Your task to perform on an android device: turn off translation in the chrome app Image 0: 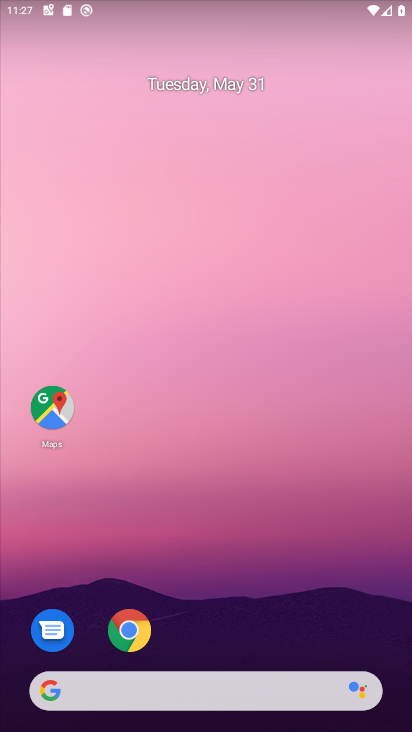
Step 0: drag from (211, 615) to (201, 153)
Your task to perform on an android device: turn off translation in the chrome app Image 1: 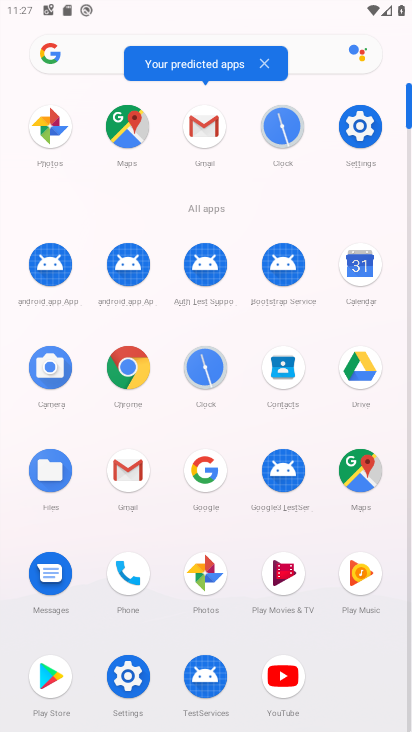
Step 1: click (118, 361)
Your task to perform on an android device: turn off translation in the chrome app Image 2: 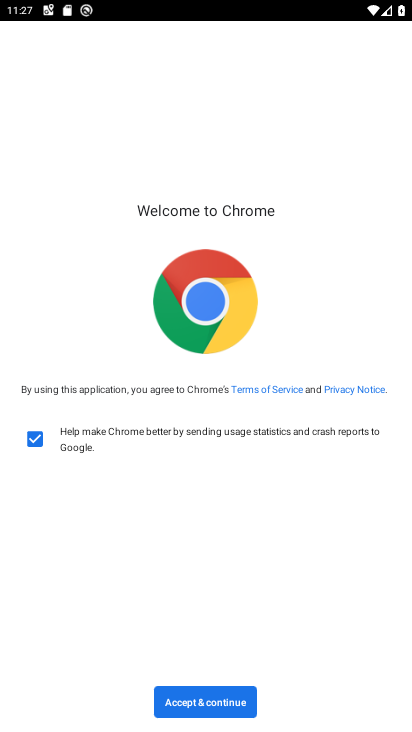
Step 2: click (213, 696)
Your task to perform on an android device: turn off translation in the chrome app Image 3: 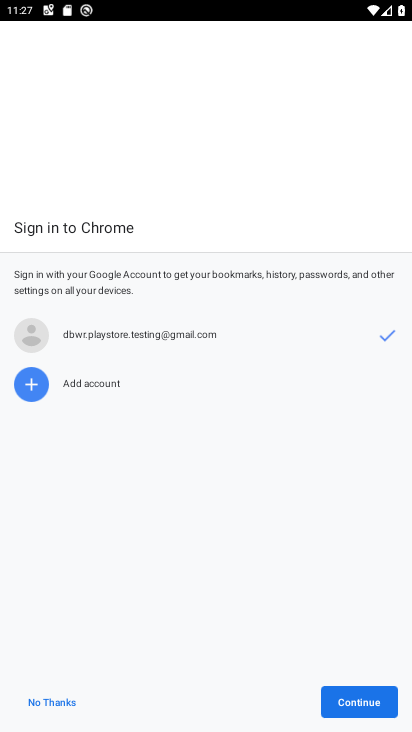
Step 3: click (352, 698)
Your task to perform on an android device: turn off translation in the chrome app Image 4: 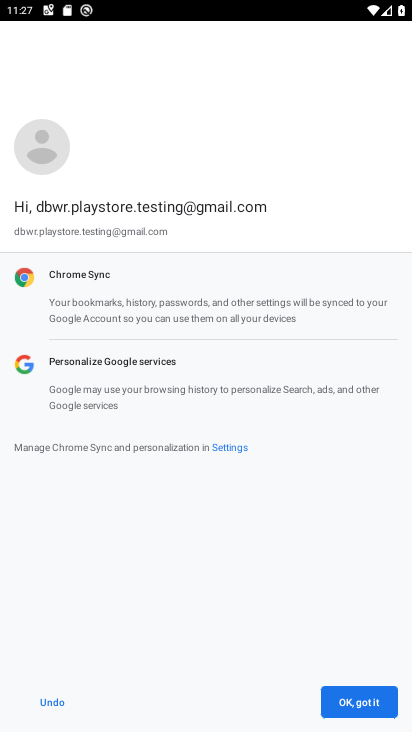
Step 4: click (354, 696)
Your task to perform on an android device: turn off translation in the chrome app Image 5: 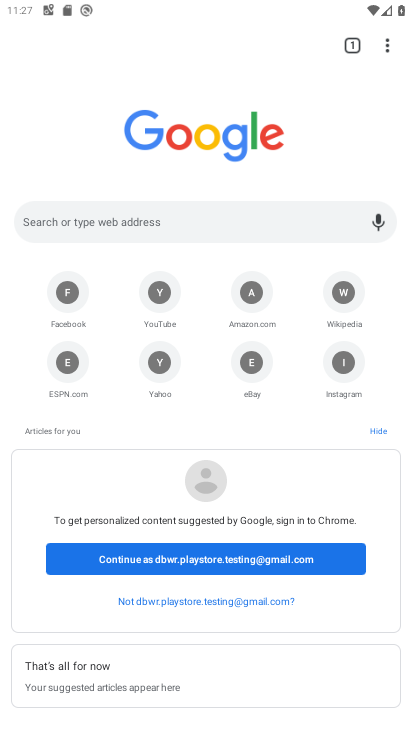
Step 5: click (379, 46)
Your task to perform on an android device: turn off translation in the chrome app Image 6: 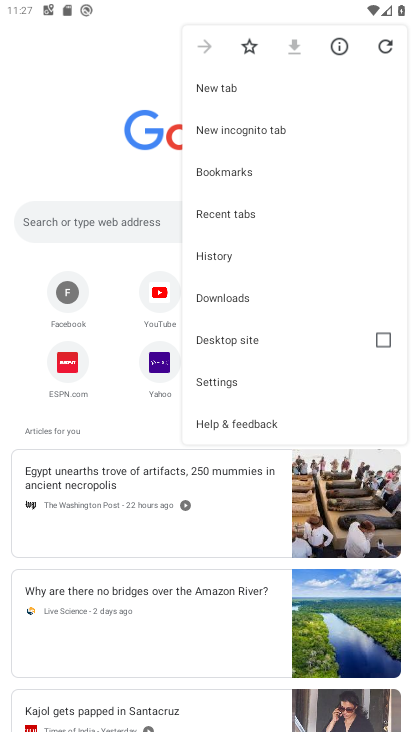
Step 6: click (227, 375)
Your task to perform on an android device: turn off translation in the chrome app Image 7: 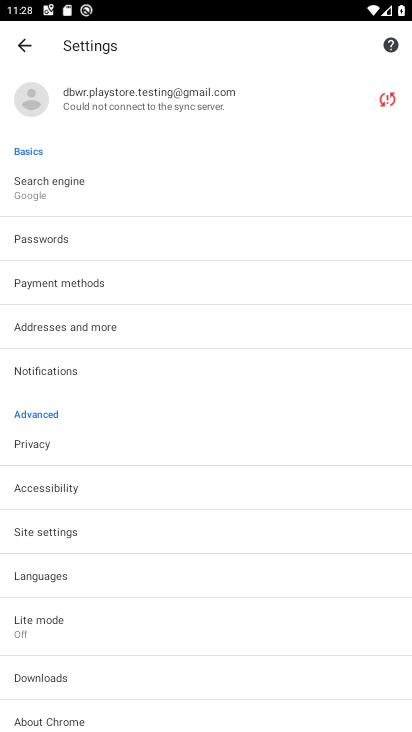
Step 7: click (100, 575)
Your task to perform on an android device: turn off translation in the chrome app Image 8: 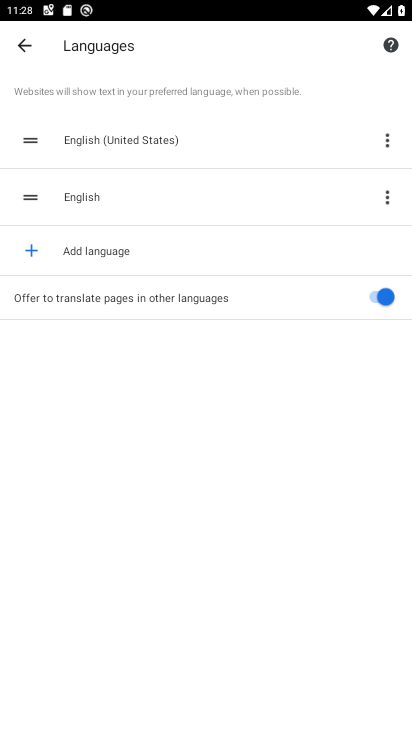
Step 8: click (380, 291)
Your task to perform on an android device: turn off translation in the chrome app Image 9: 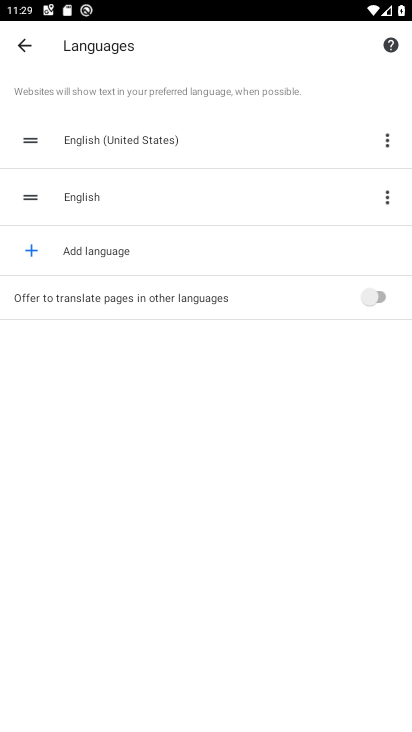
Step 9: task complete